Your task to perform on an android device: check storage Image 0: 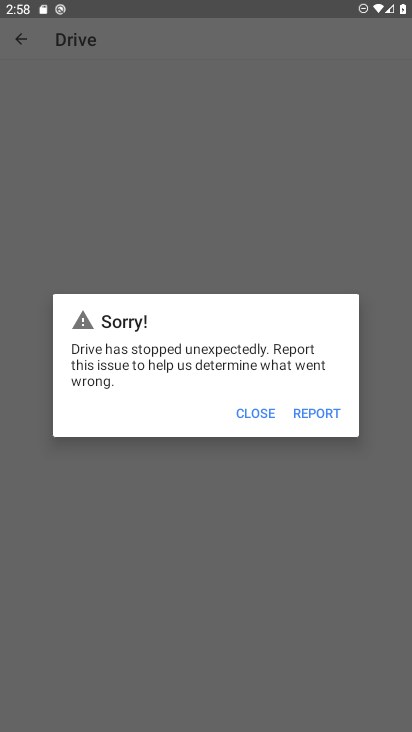
Step 0: press home button
Your task to perform on an android device: check storage Image 1: 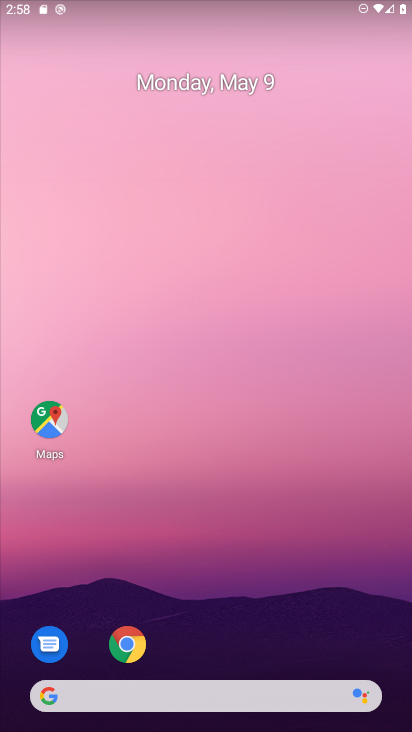
Step 1: drag from (196, 474) to (236, 222)
Your task to perform on an android device: check storage Image 2: 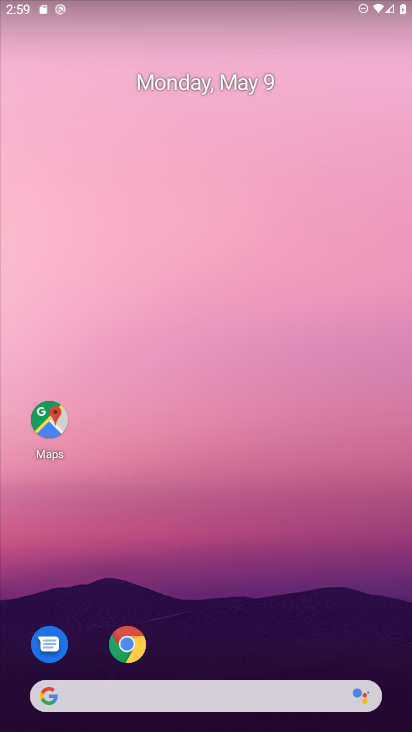
Step 2: click (204, 558)
Your task to perform on an android device: check storage Image 3: 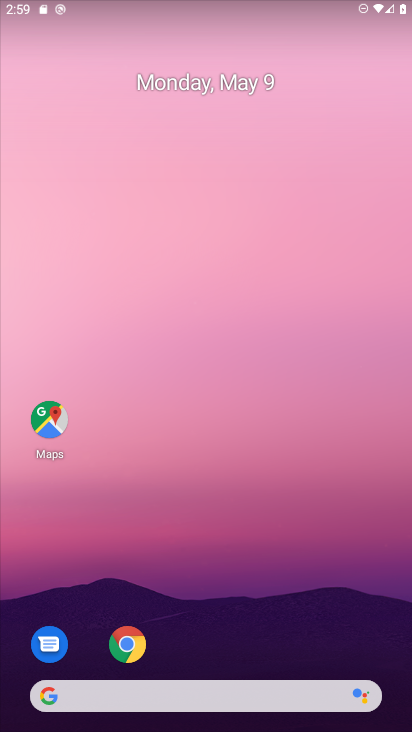
Step 3: drag from (178, 481) to (294, 192)
Your task to perform on an android device: check storage Image 4: 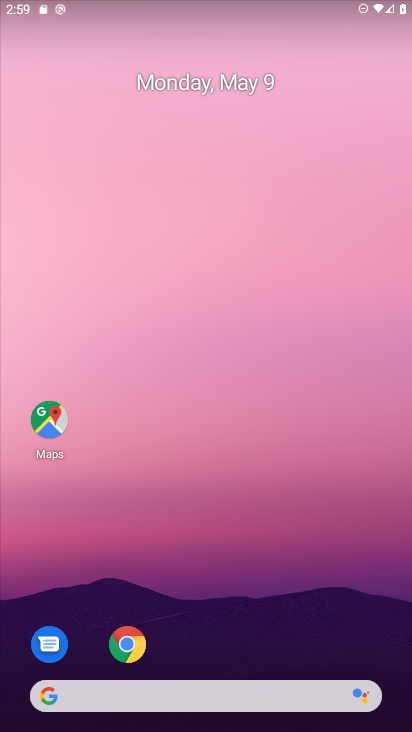
Step 4: drag from (217, 640) to (189, 146)
Your task to perform on an android device: check storage Image 5: 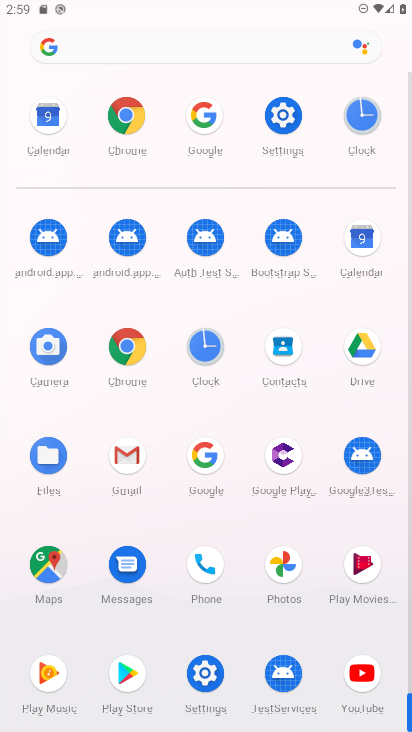
Step 5: click (287, 146)
Your task to perform on an android device: check storage Image 6: 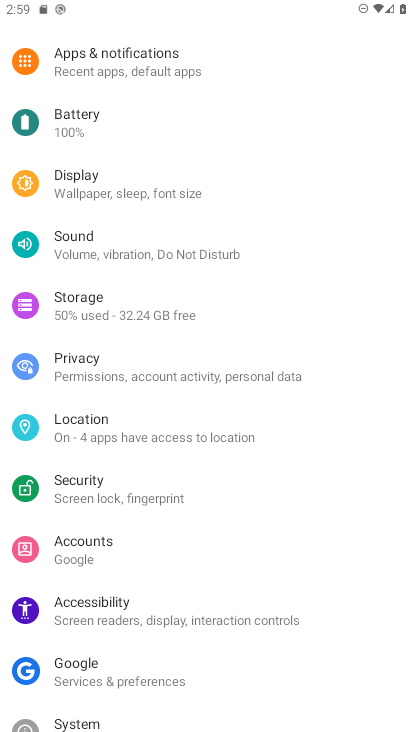
Step 6: click (83, 323)
Your task to perform on an android device: check storage Image 7: 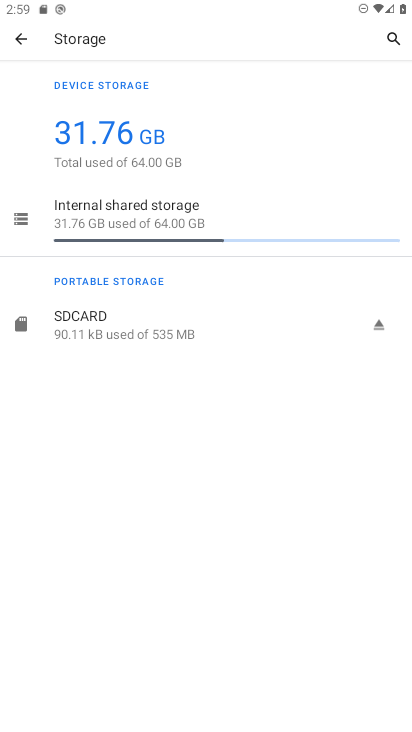
Step 7: task complete